Your task to perform on an android device: Go to ESPN.com Image 0: 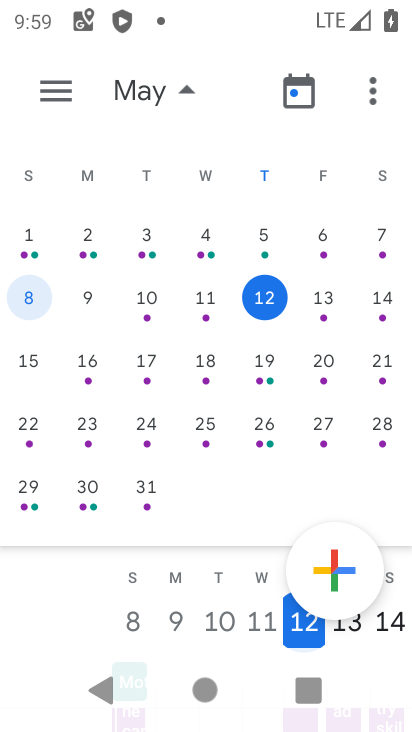
Step 0: press home button
Your task to perform on an android device: Go to ESPN.com Image 1: 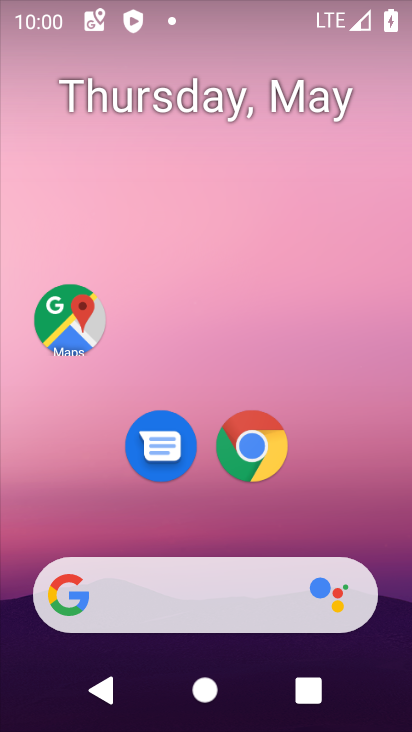
Step 1: click (256, 447)
Your task to perform on an android device: Go to ESPN.com Image 2: 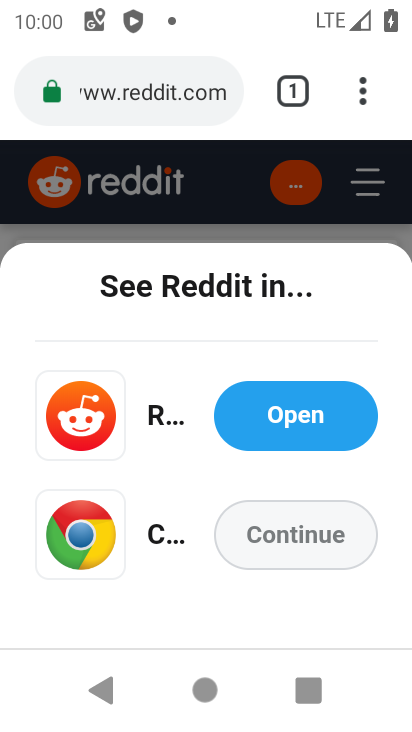
Step 2: click (163, 83)
Your task to perform on an android device: Go to ESPN.com Image 3: 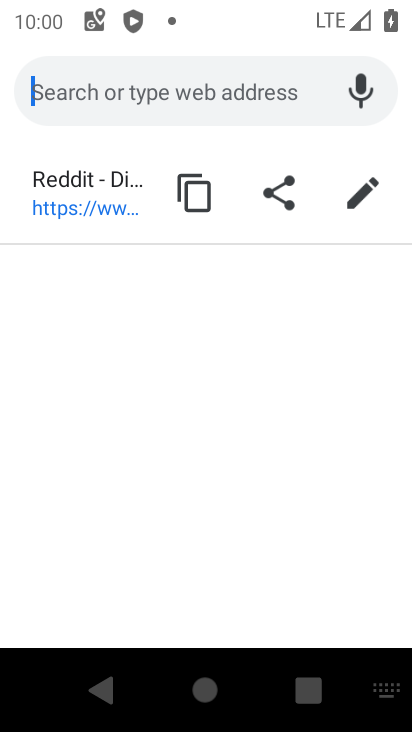
Step 3: type "espn.com"
Your task to perform on an android device: Go to ESPN.com Image 4: 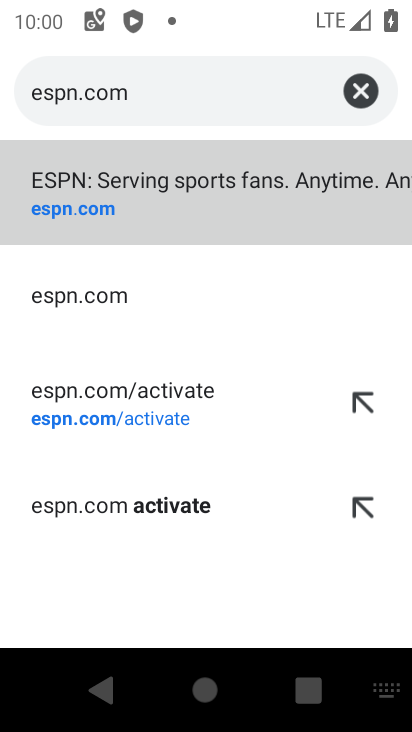
Step 4: click (119, 198)
Your task to perform on an android device: Go to ESPN.com Image 5: 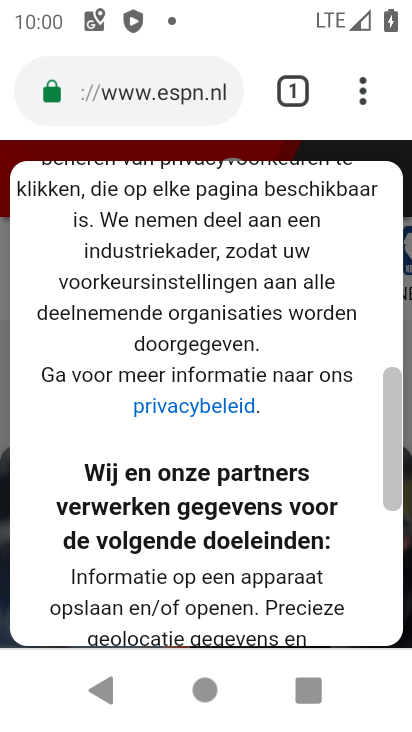
Step 5: task complete